Your task to perform on an android device: What's the US dollar exchange rate against the Euro? Image 0: 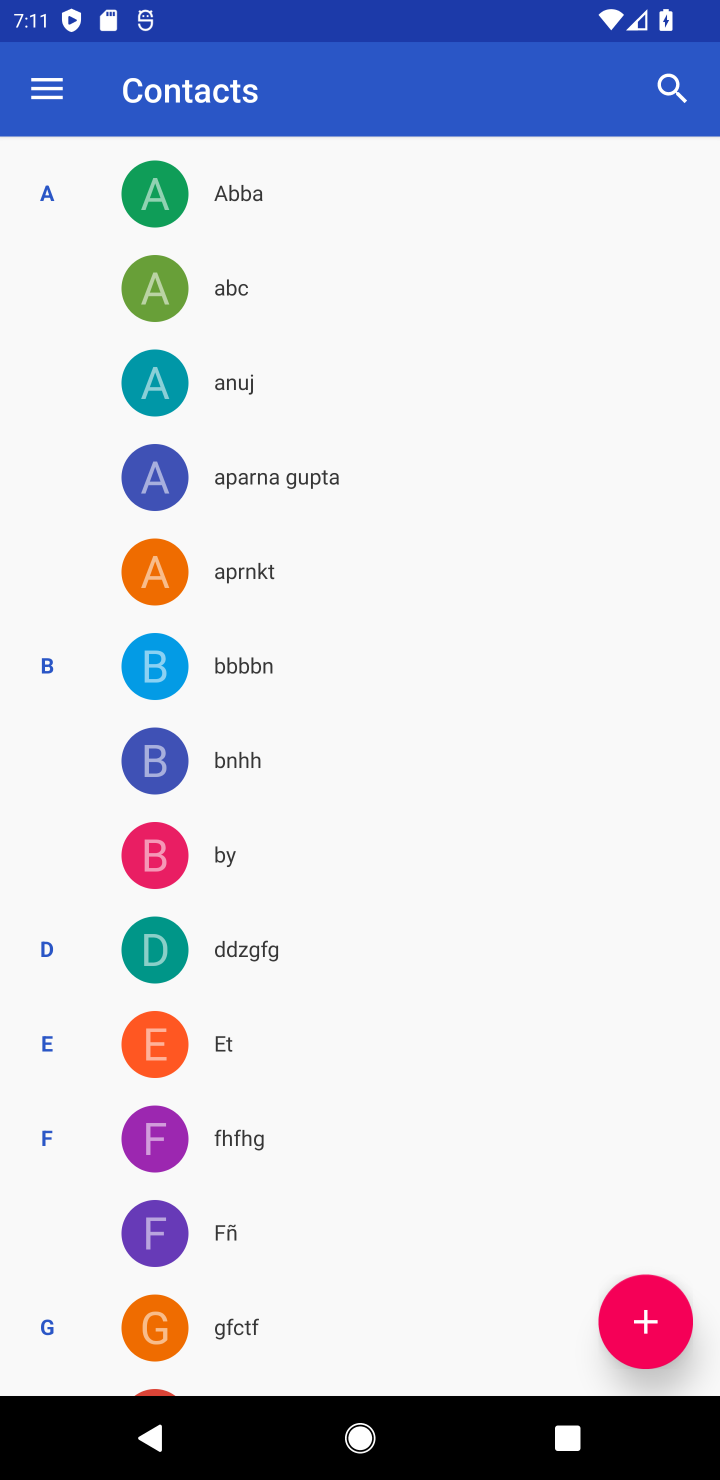
Step 0: press home button
Your task to perform on an android device: What's the US dollar exchange rate against the Euro? Image 1: 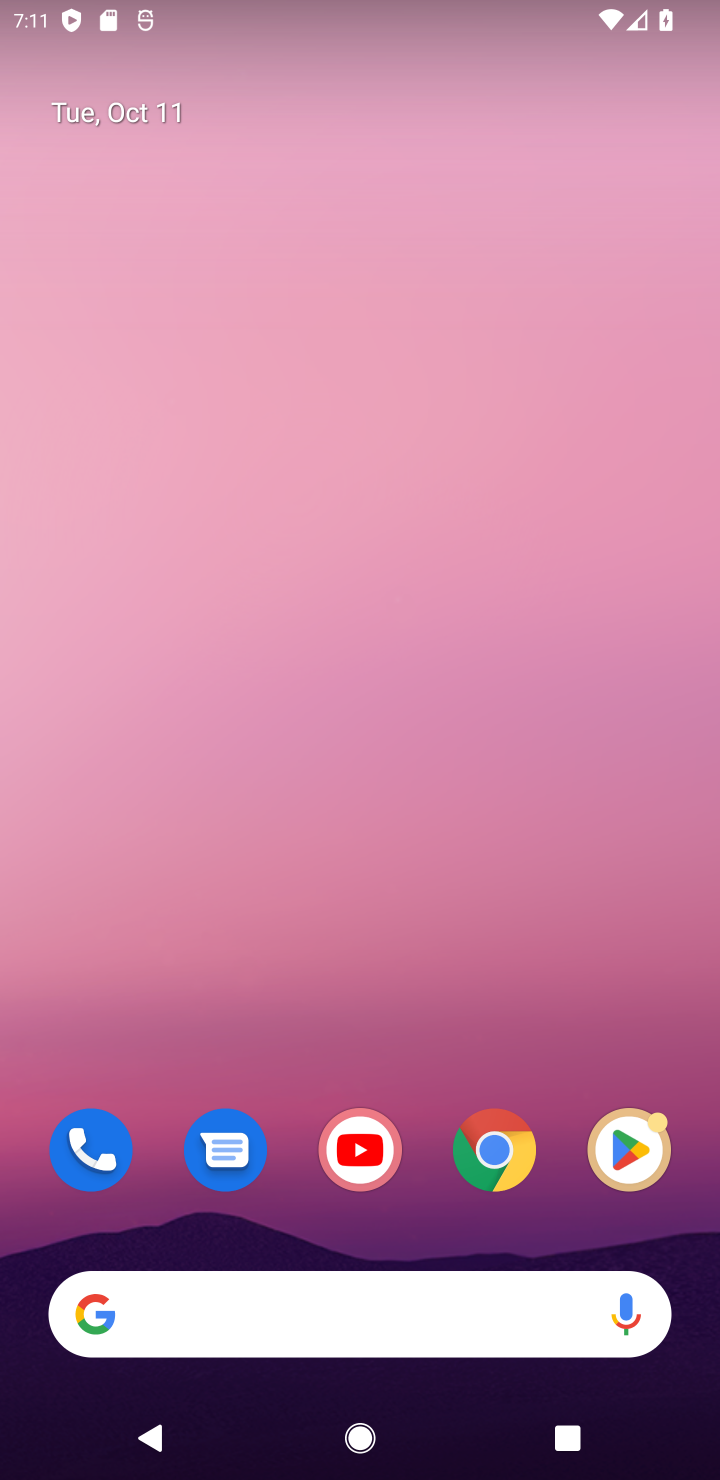
Step 1: click (503, 1160)
Your task to perform on an android device: What's the US dollar exchange rate against the Euro? Image 2: 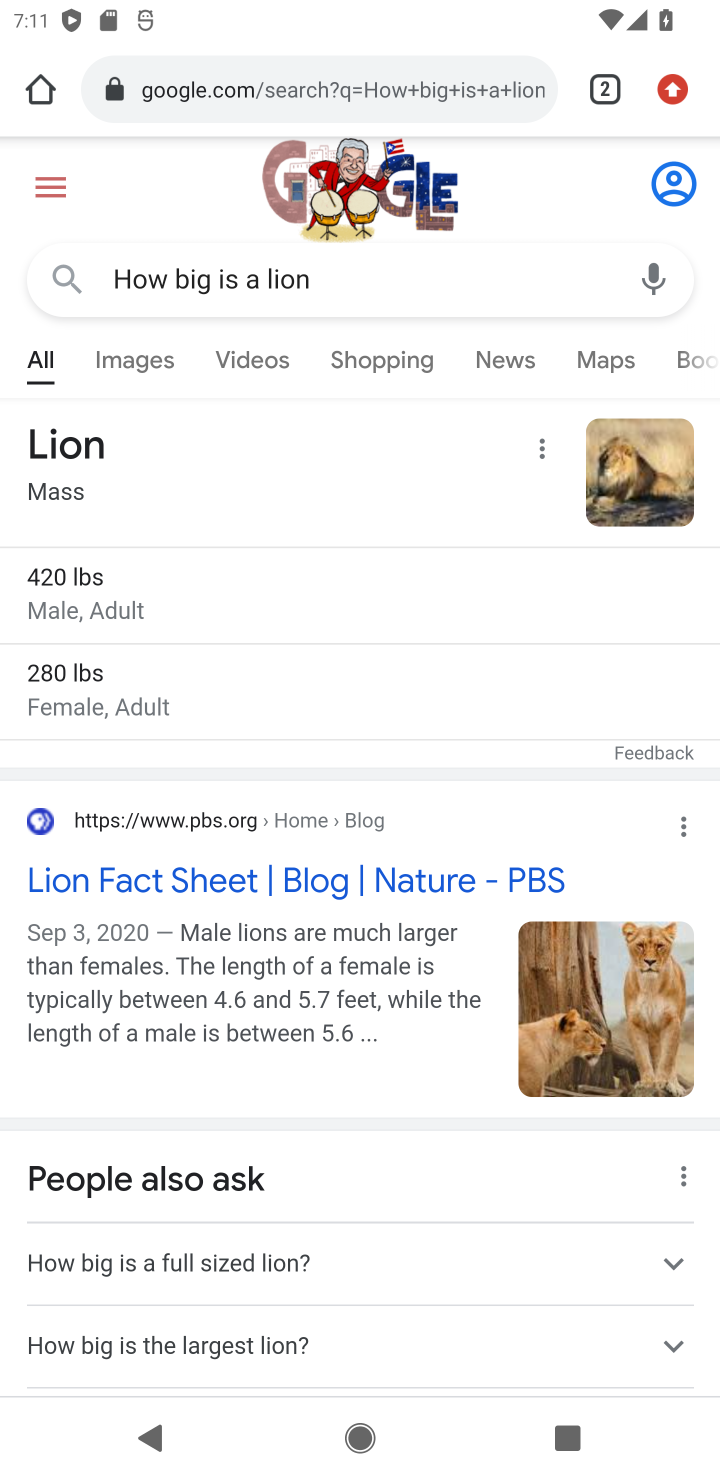
Step 2: click (218, 79)
Your task to perform on an android device: What's the US dollar exchange rate against the Euro? Image 3: 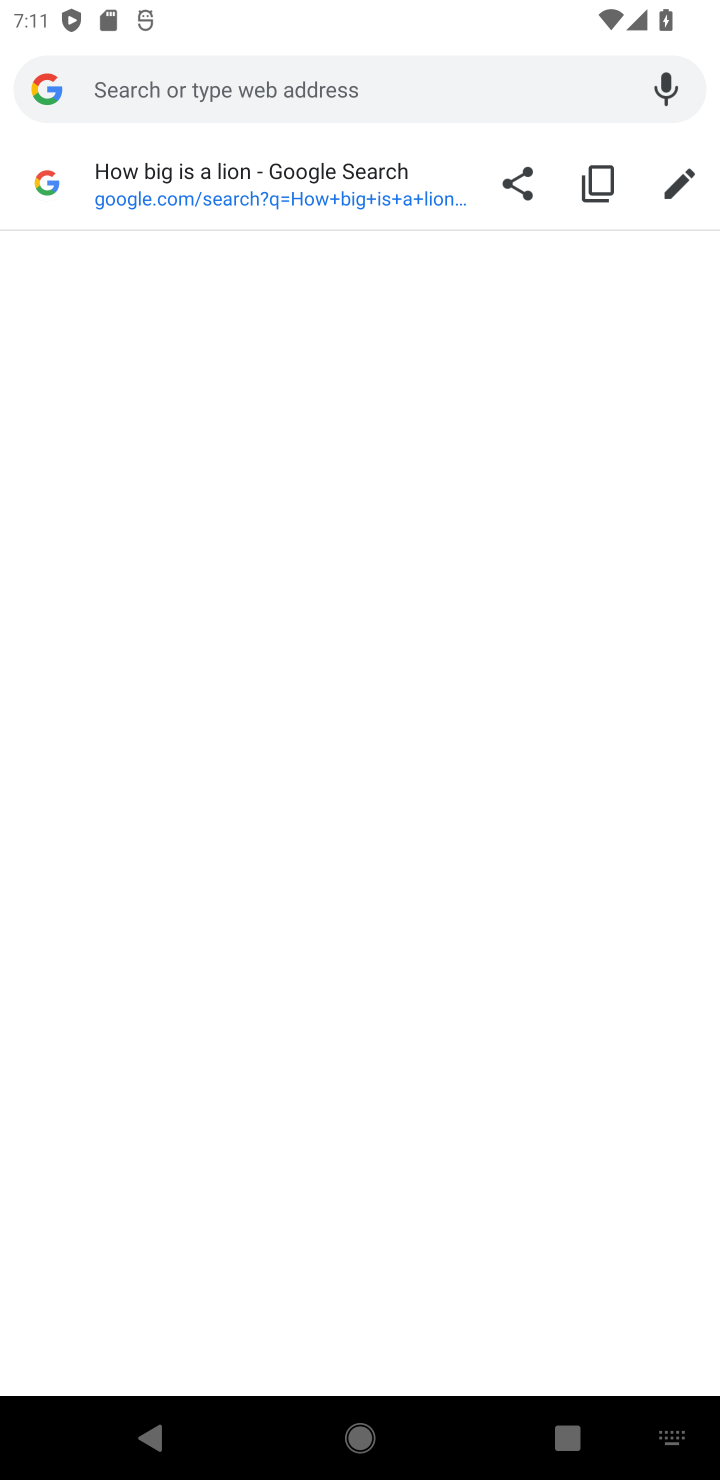
Step 3: type "US dollar exchange rate against the Euro"
Your task to perform on an android device: What's the US dollar exchange rate against the Euro? Image 4: 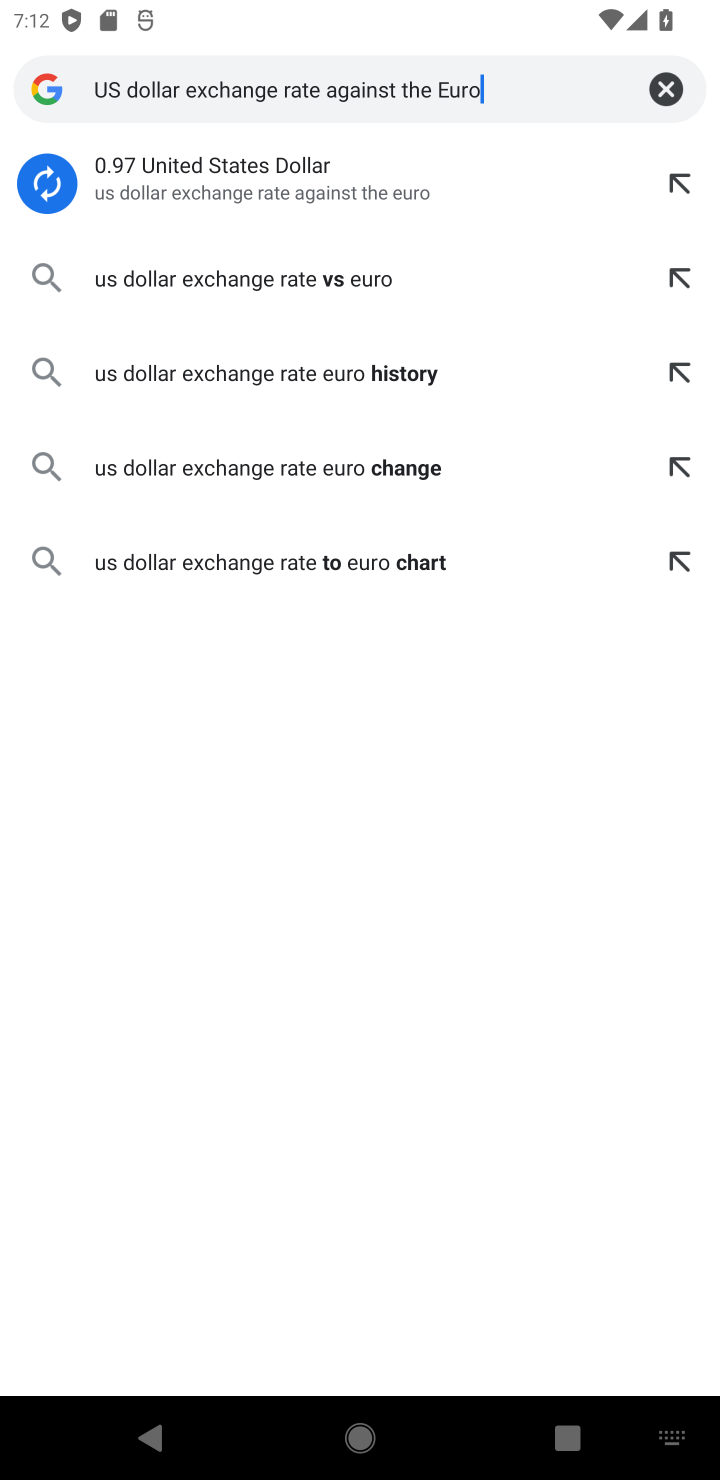
Step 4: click (209, 184)
Your task to perform on an android device: What's the US dollar exchange rate against the Euro? Image 5: 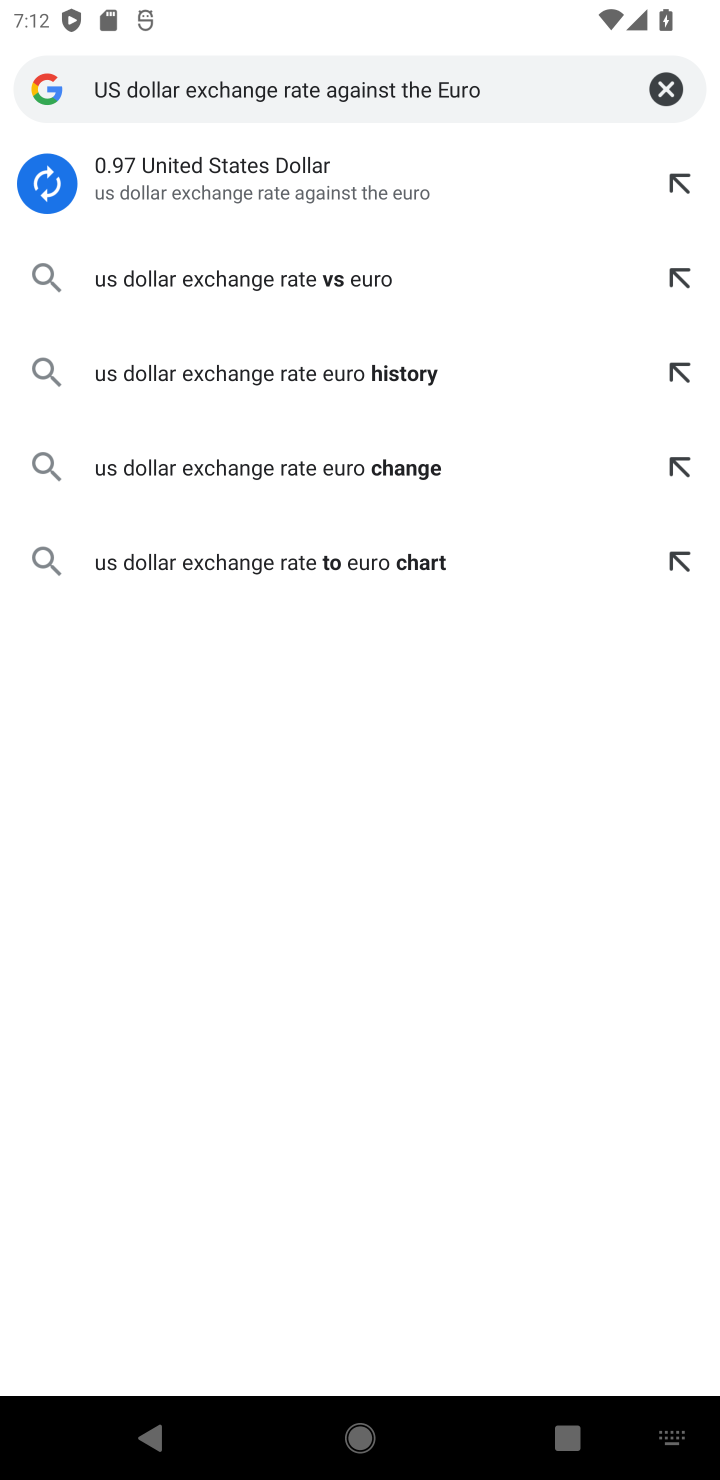
Step 5: click (234, 197)
Your task to perform on an android device: What's the US dollar exchange rate against the Euro? Image 6: 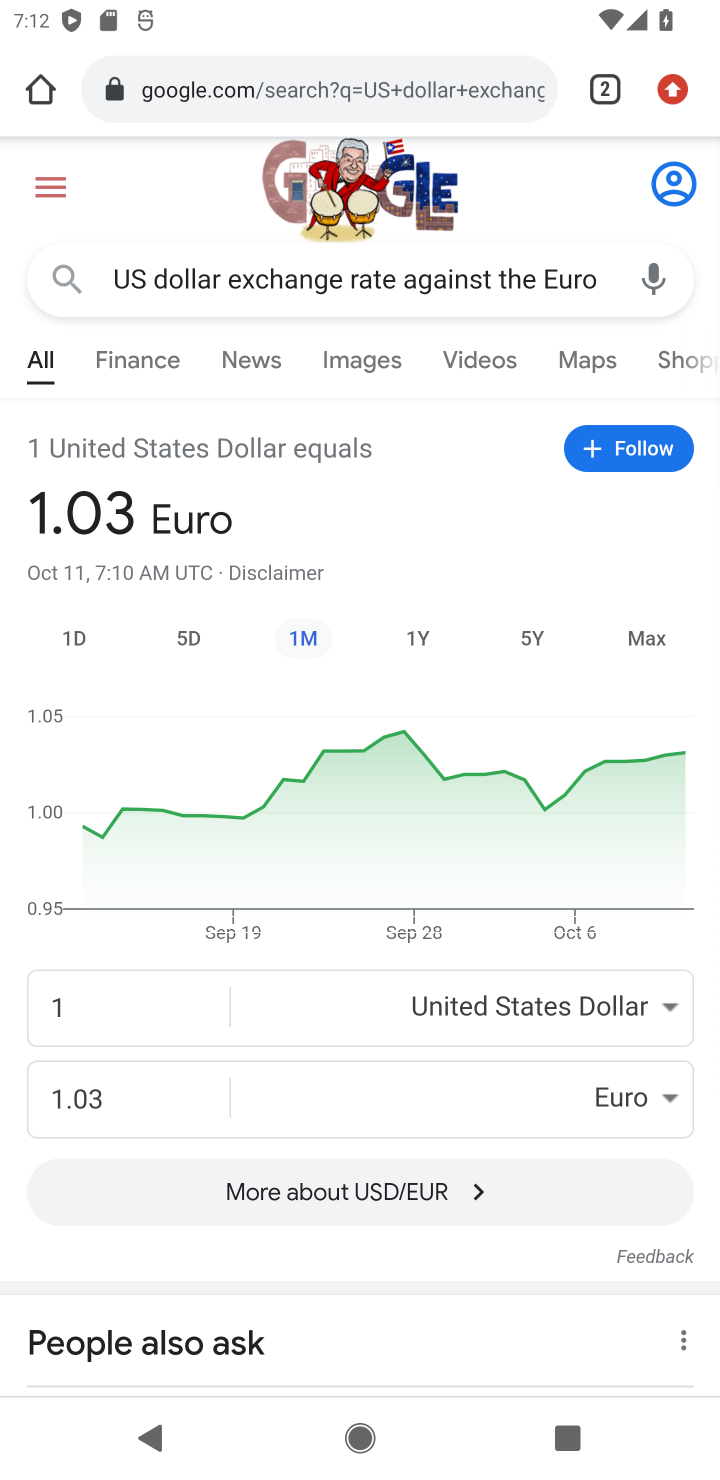
Step 6: task complete